Your task to perform on an android device: check android version Image 0: 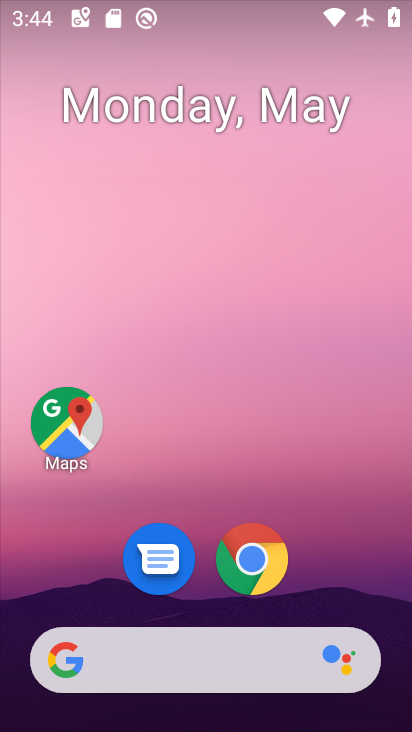
Step 0: drag from (308, 587) to (261, 54)
Your task to perform on an android device: check android version Image 1: 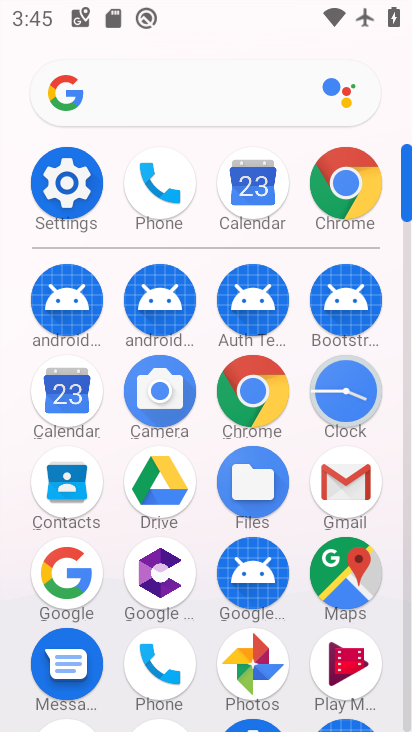
Step 1: click (65, 183)
Your task to perform on an android device: check android version Image 2: 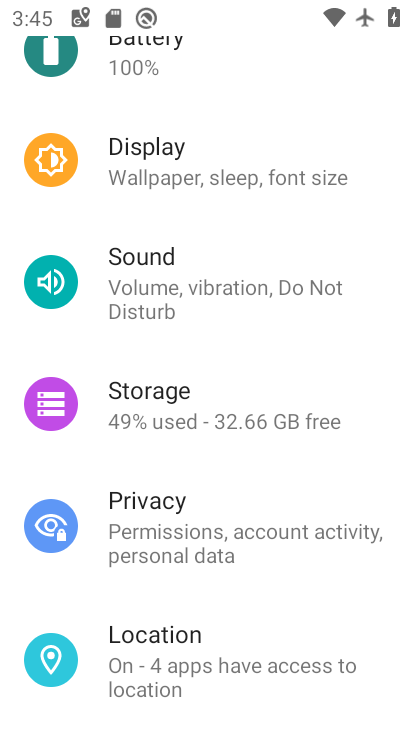
Step 2: drag from (139, 647) to (192, 340)
Your task to perform on an android device: check android version Image 3: 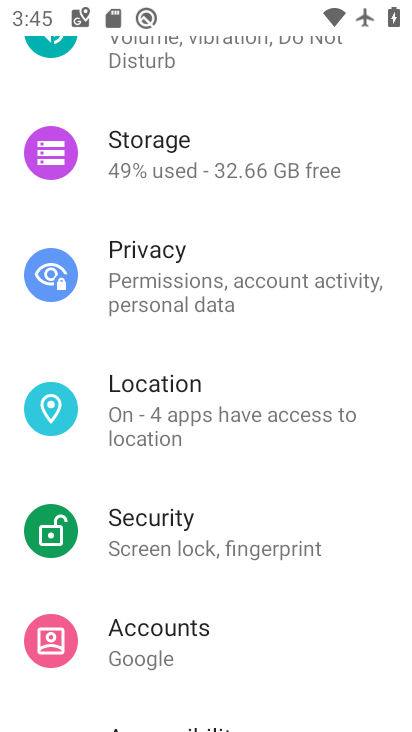
Step 3: drag from (205, 592) to (284, 299)
Your task to perform on an android device: check android version Image 4: 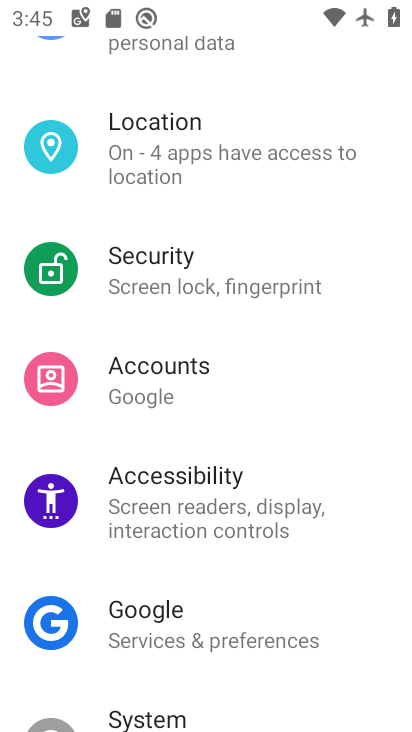
Step 4: drag from (178, 595) to (207, 331)
Your task to perform on an android device: check android version Image 5: 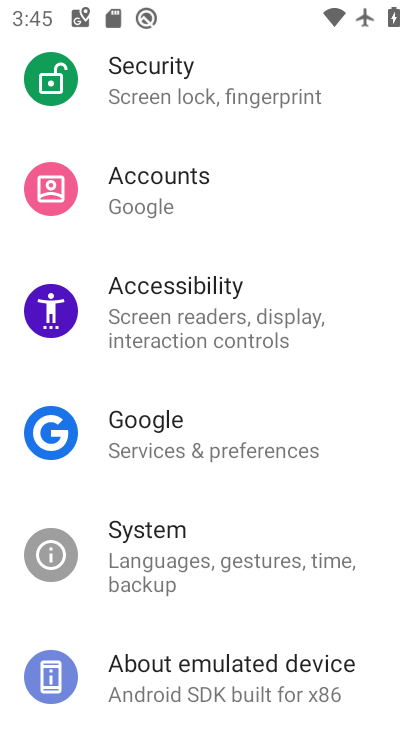
Step 5: click (156, 682)
Your task to perform on an android device: check android version Image 6: 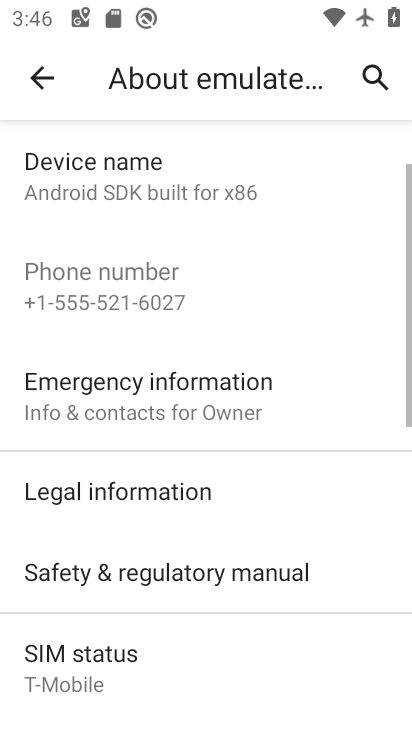
Step 6: drag from (130, 657) to (165, 305)
Your task to perform on an android device: check android version Image 7: 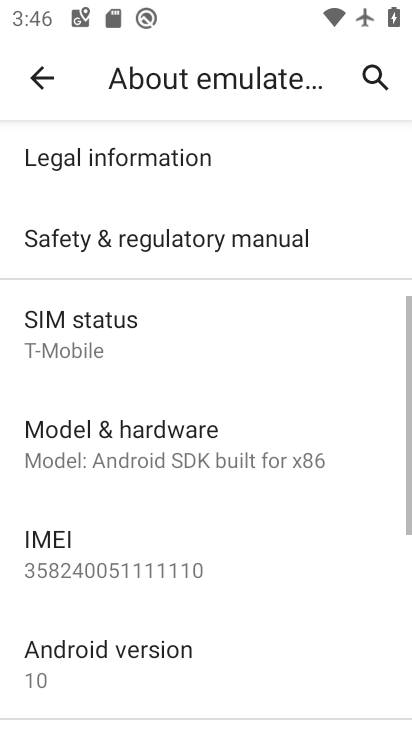
Step 7: click (101, 679)
Your task to perform on an android device: check android version Image 8: 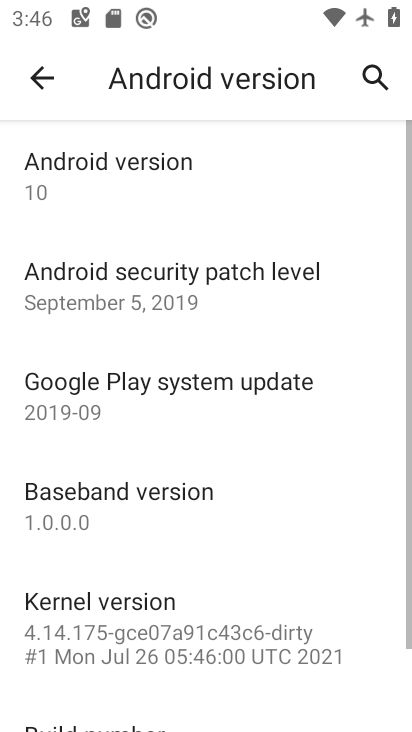
Step 8: task complete